Your task to perform on an android device: toggle location history Image 0: 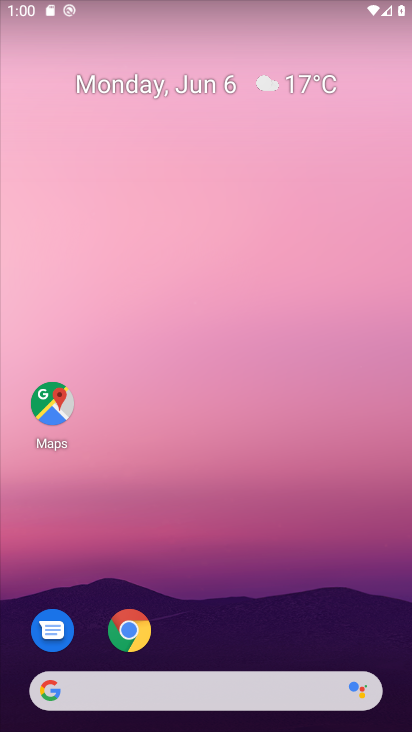
Step 0: drag from (138, 727) to (197, 0)
Your task to perform on an android device: toggle location history Image 1: 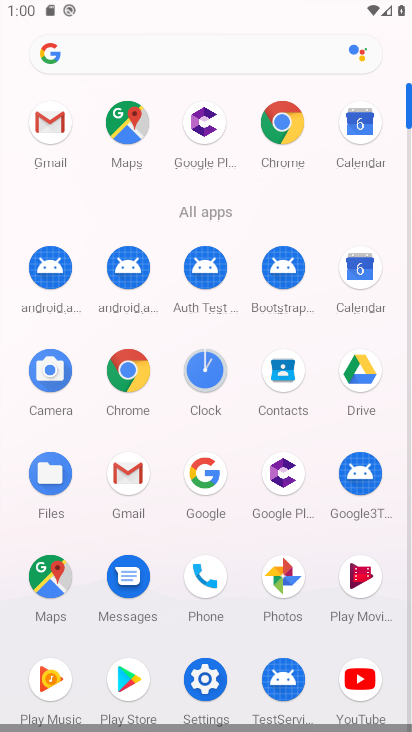
Step 1: click (196, 665)
Your task to perform on an android device: toggle location history Image 2: 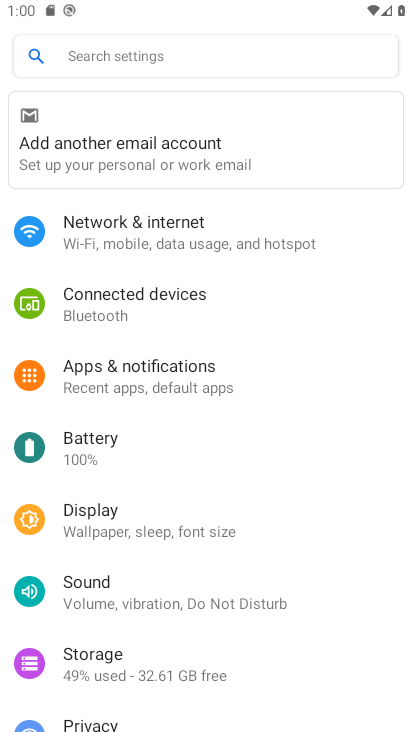
Step 2: drag from (204, 498) to (169, 147)
Your task to perform on an android device: toggle location history Image 3: 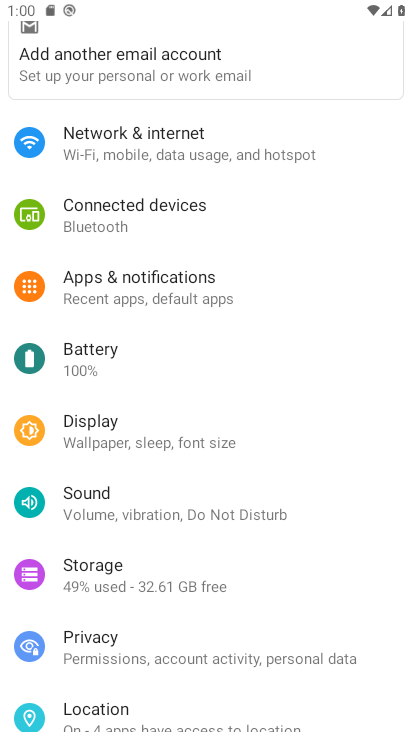
Step 3: click (115, 712)
Your task to perform on an android device: toggle location history Image 4: 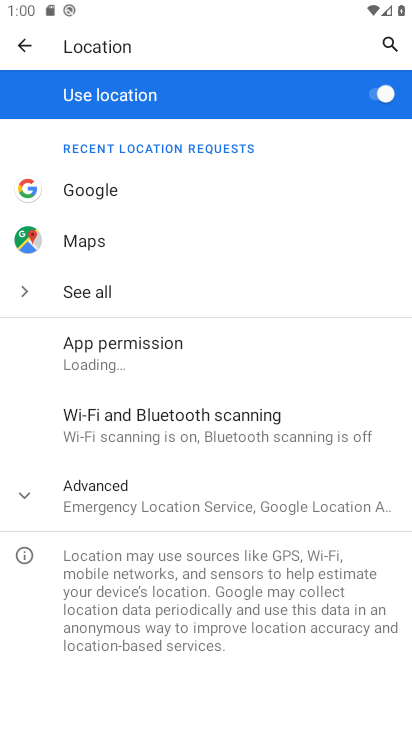
Step 4: click (273, 503)
Your task to perform on an android device: toggle location history Image 5: 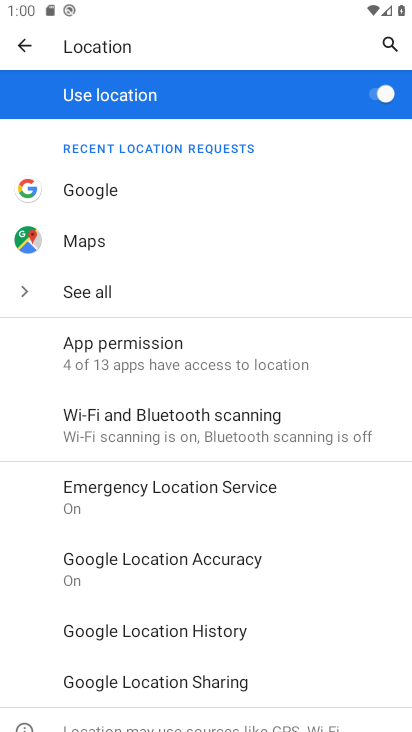
Step 5: click (163, 631)
Your task to perform on an android device: toggle location history Image 6: 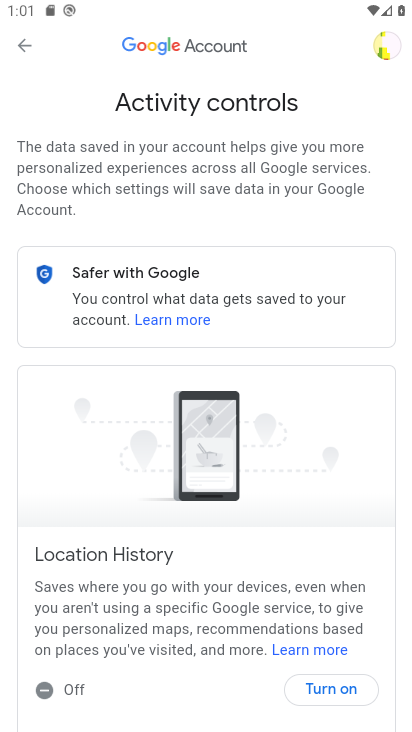
Step 6: click (364, 690)
Your task to perform on an android device: toggle location history Image 7: 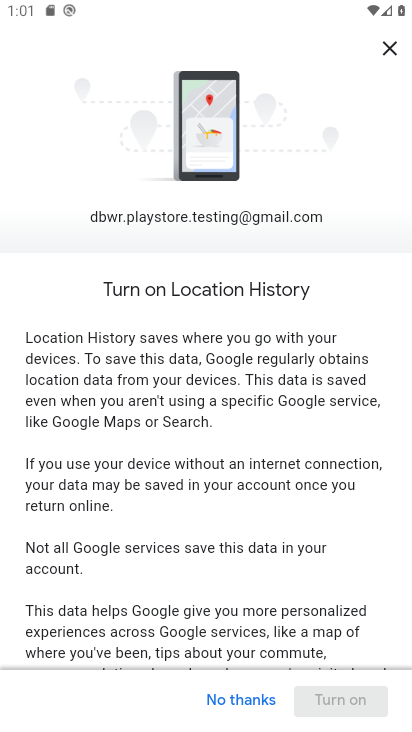
Step 7: drag from (290, 523) to (244, 194)
Your task to perform on an android device: toggle location history Image 8: 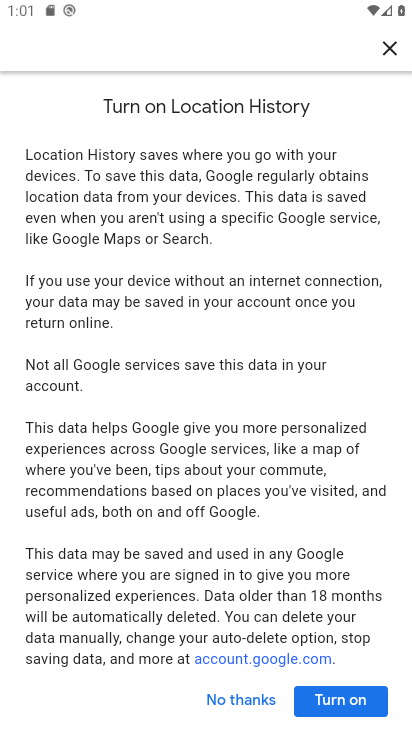
Step 8: click (349, 706)
Your task to perform on an android device: toggle location history Image 9: 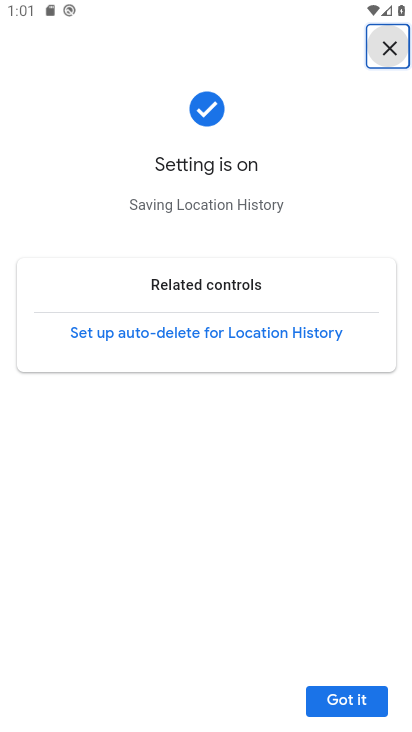
Step 9: click (357, 711)
Your task to perform on an android device: toggle location history Image 10: 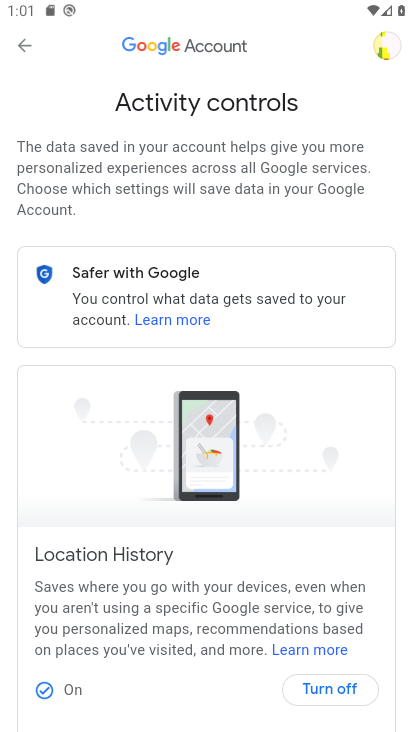
Step 10: task complete